Your task to perform on an android device: Open Google Chrome and open the bookmarks view Image 0: 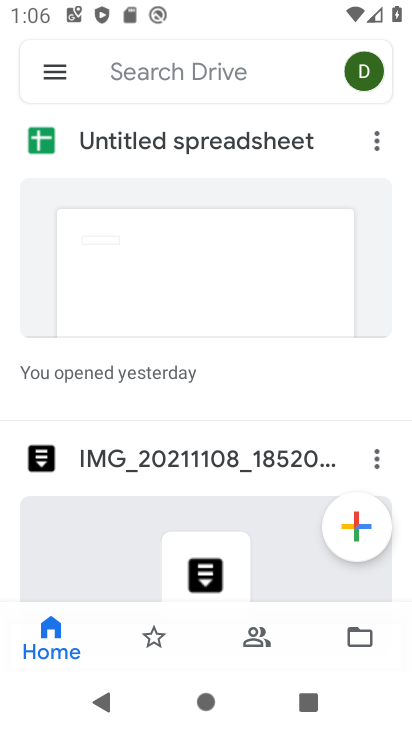
Step 0: press home button
Your task to perform on an android device: Open Google Chrome and open the bookmarks view Image 1: 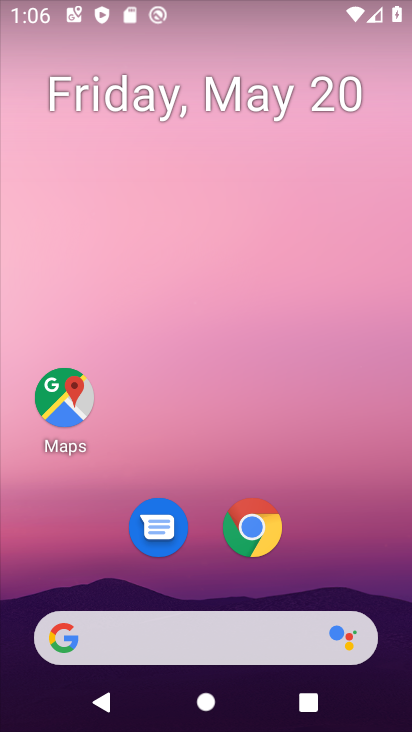
Step 1: click (236, 530)
Your task to perform on an android device: Open Google Chrome and open the bookmarks view Image 2: 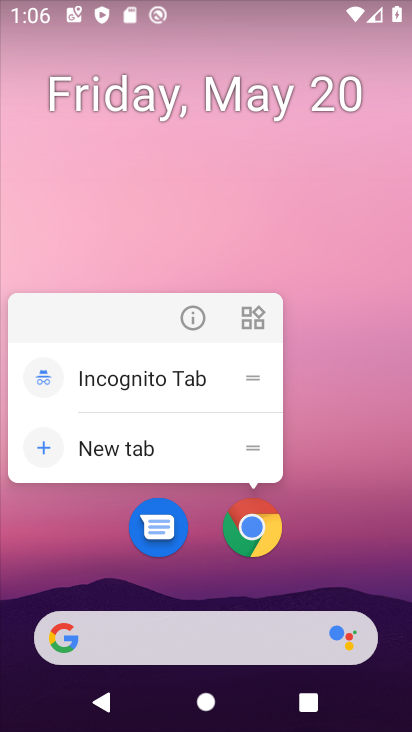
Step 2: click (250, 527)
Your task to perform on an android device: Open Google Chrome and open the bookmarks view Image 3: 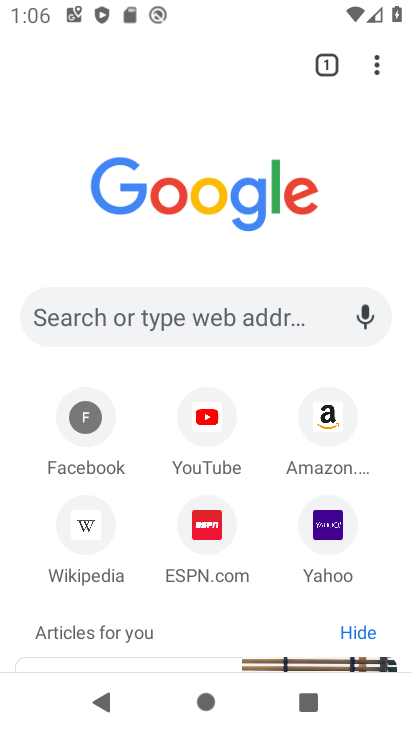
Step 3: task complete